Your task to perform on an android device: Go to sound settings Image 0: 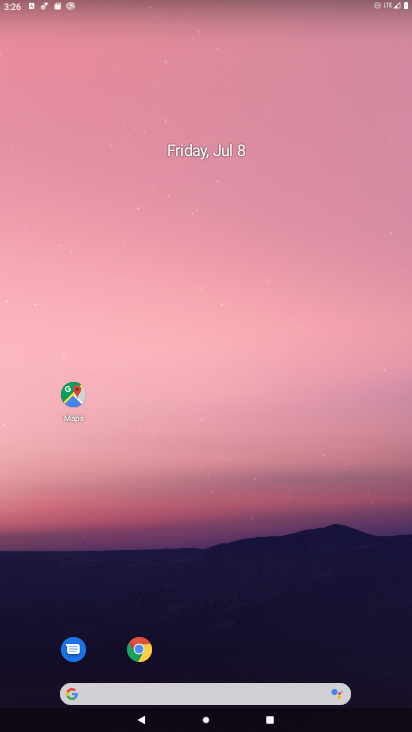
Step 0: drag from (364, 630) to (324, 33)
Your task to perform on an android device: Go to sound settings Image 1: 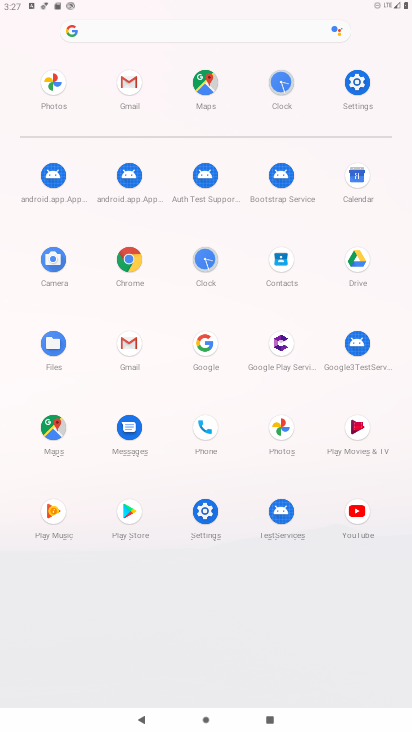
Step 1: click (205, 516)
Your task to perform on an android device: Go to sound settings Image 2: 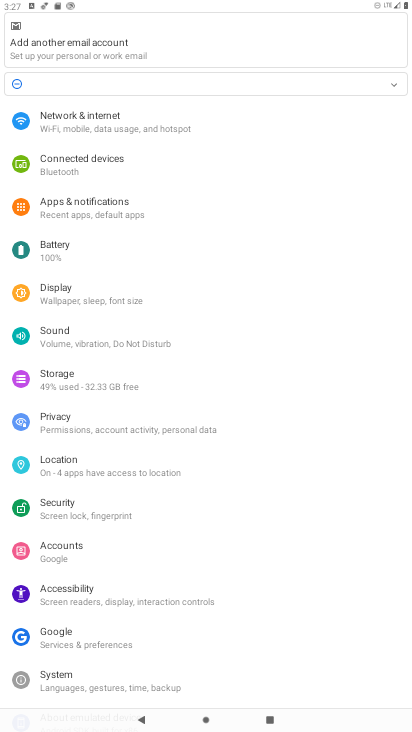
Step 2: click (66, 335)
Your task to perform on an android device: Go to sound settings Image 3: 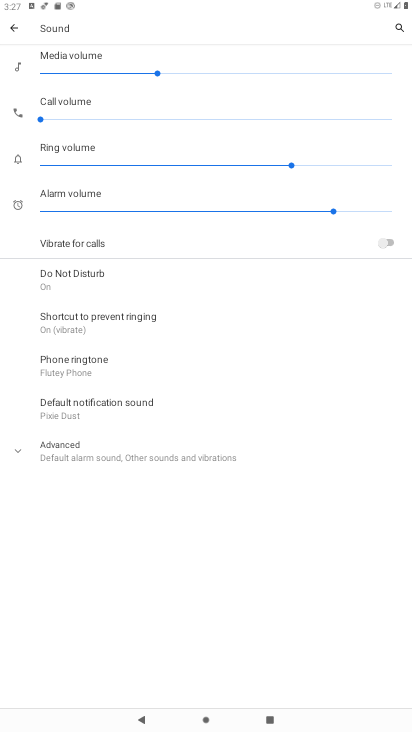
Step 3: task complete